Your task to perform on an android device: set an alarm Image 0: 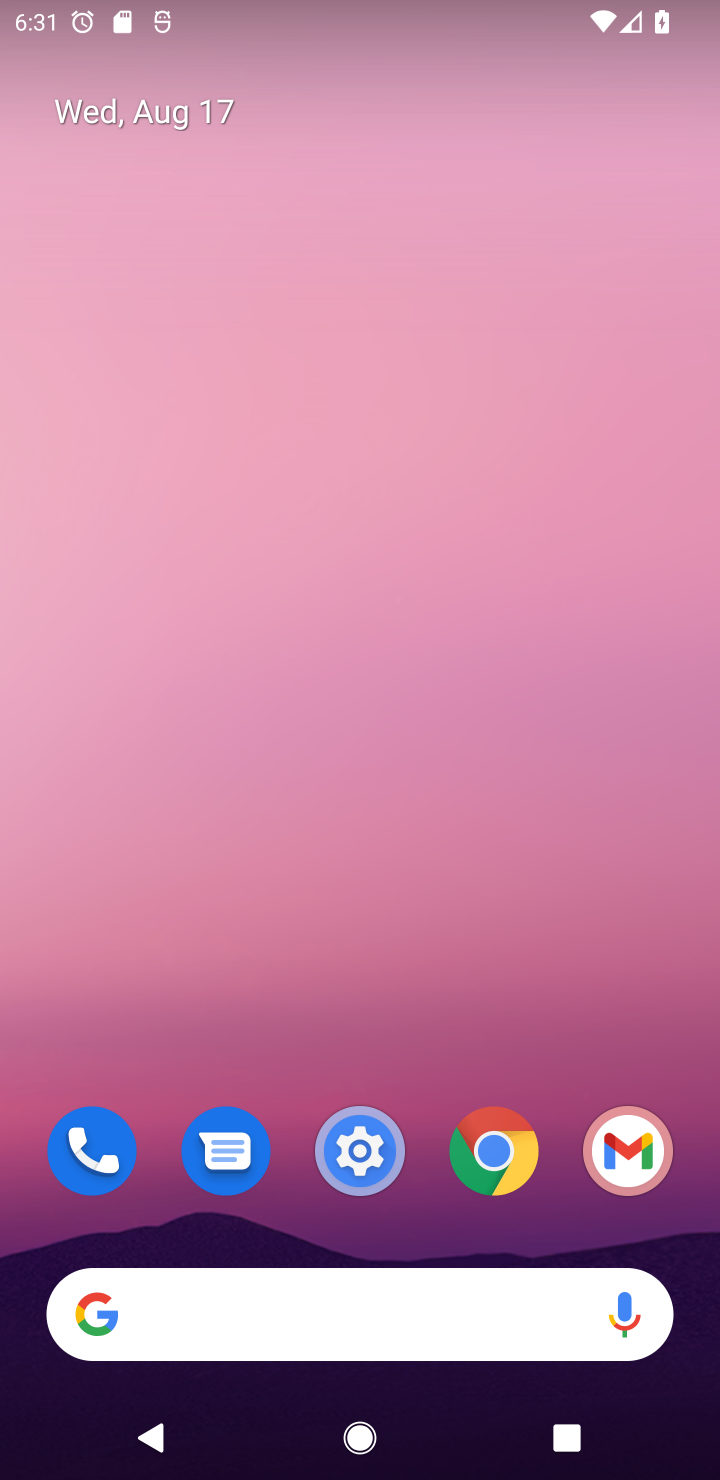
Step 0: drag from (426, 1244) to (469, 104)
Your task to perform on an android device: set an alarm Image 1: 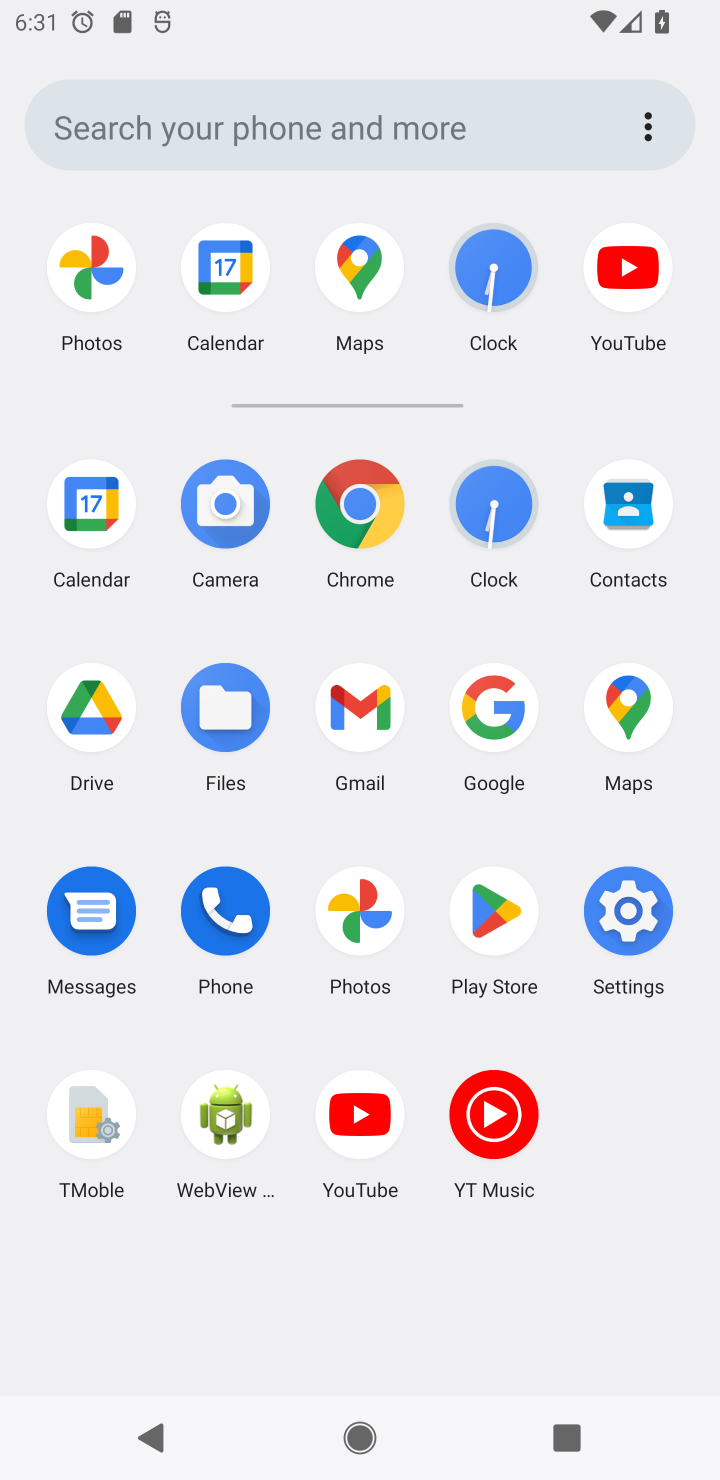
Step 1: click (482, 562)
Your task to perform on an android device: set an alarm Image 2: 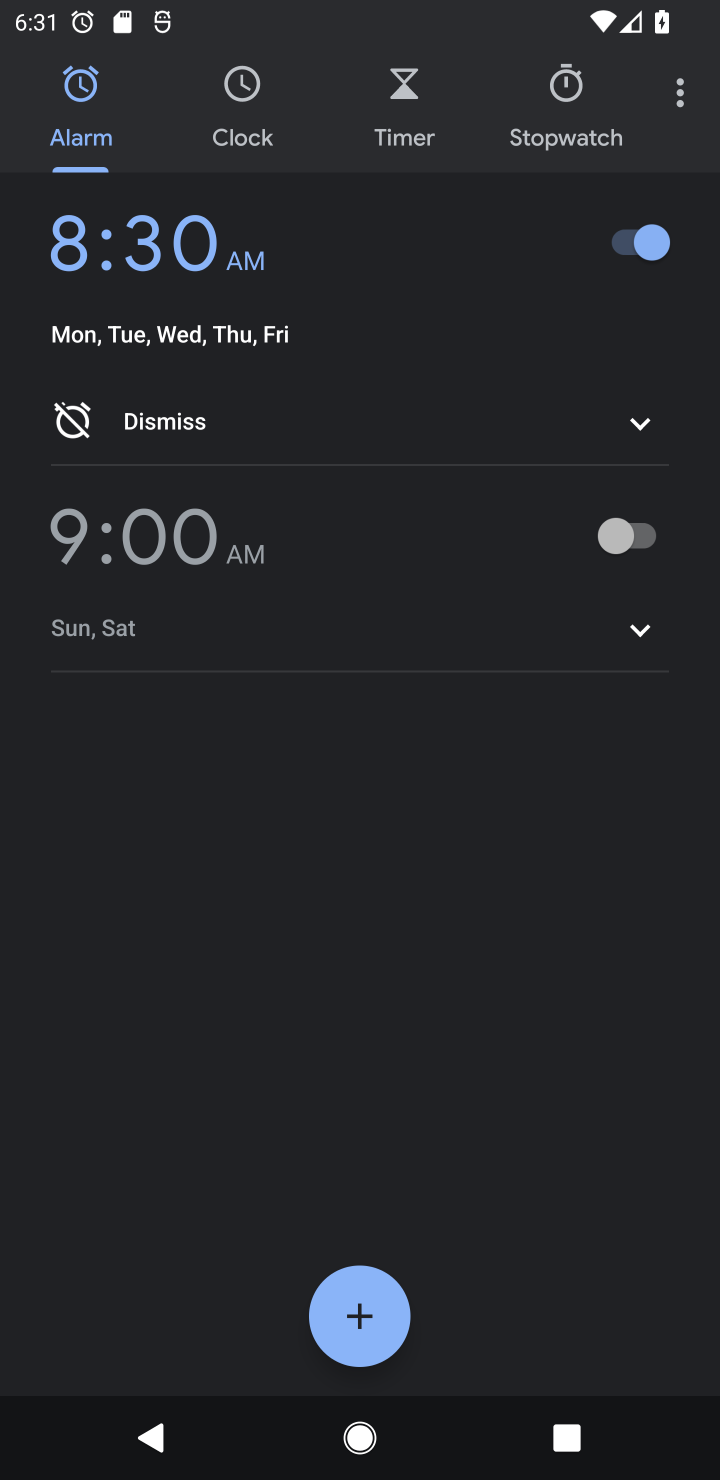
Step 2: task complete